Your task to perform on an android device: Open calendar and show me the fourth week of next month Image 0: 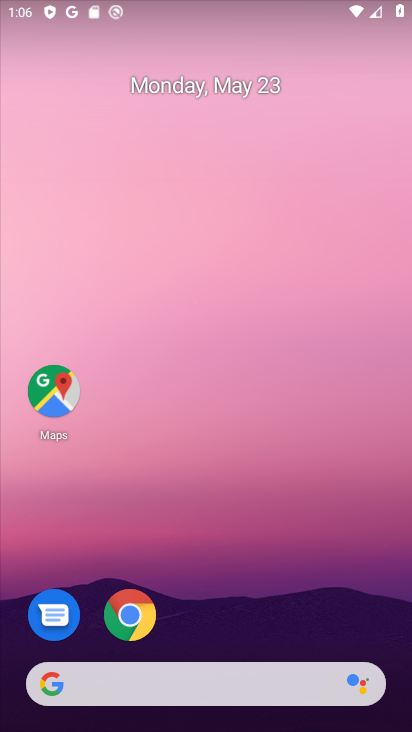
Step 0: drag from (222, 657) to (262, 26)
Your task to perform on an android device: Open calendar and show me the fourth week of next month Image 1: 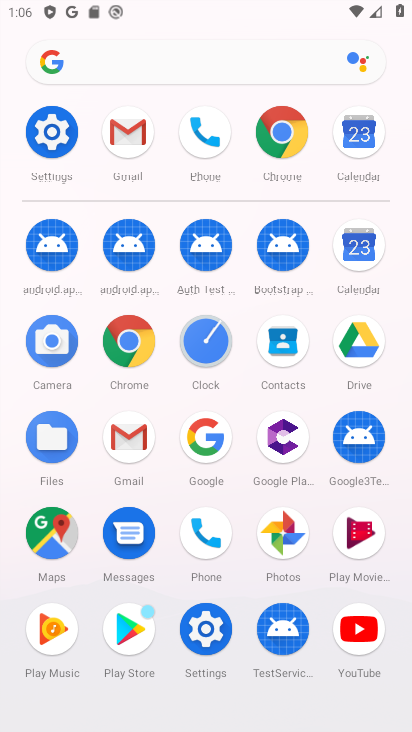
Step 1: click (359, 253)
Your task to perform on an android device: Open calendar and show me the fourth week of next month Image 2: 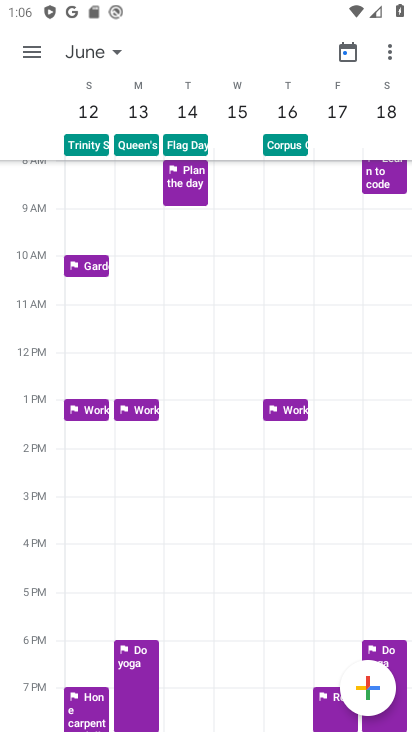
Step 2: task complete